Your task to perform on an android device: add a contact Image 0: 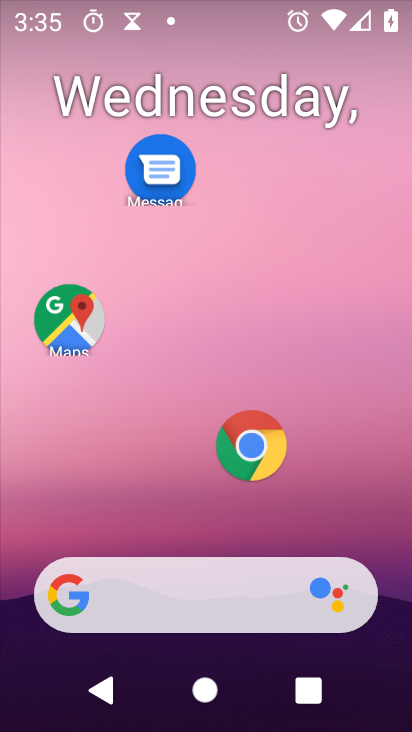
Step 0: press home button
Your task to perform on an android device: add a contact Image 1: 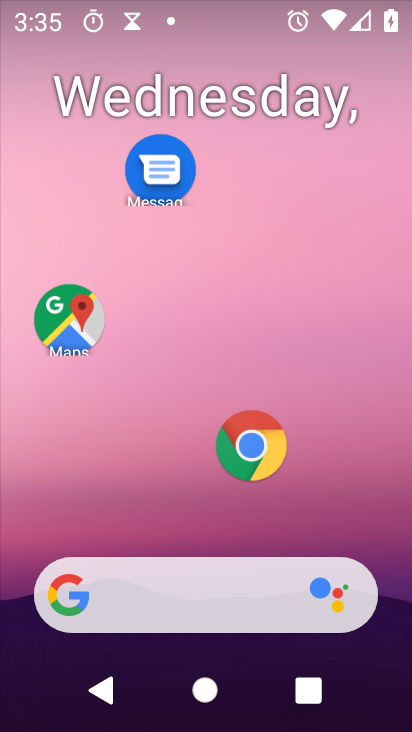
Step 1: drag from (78, 500) to (292, 117)
Your task to perform on an android device: add a contact Image 2: 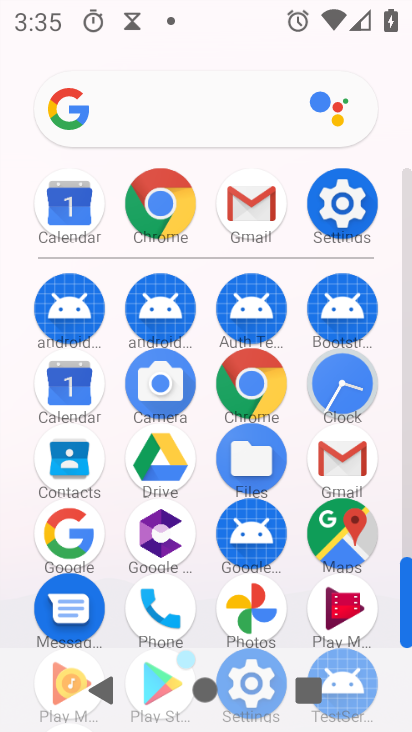
Step 2: click (144, 598)
Your task to perform on an android device: add a contact Image 3: 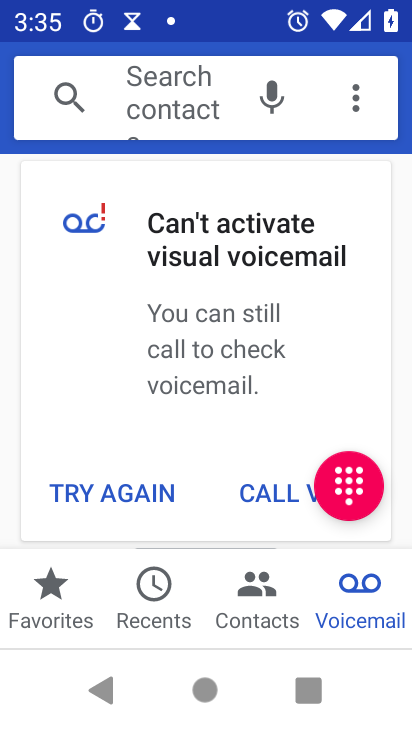
Step 3: click (241, 589)
Your task to perform on an android device: add a contact Image 4: 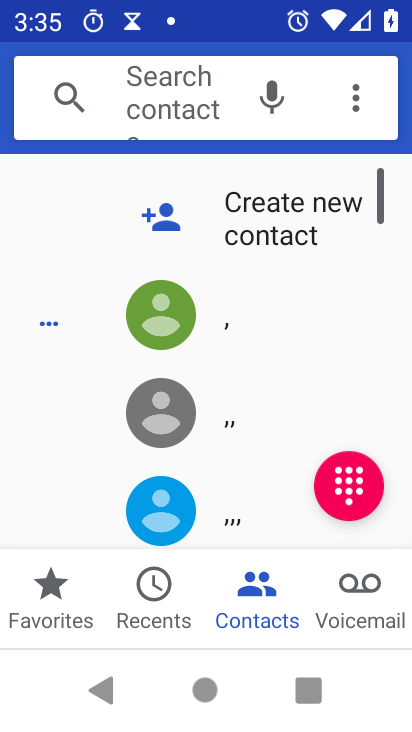
Step 4: click (235, 219)
Your task to perform on an android device: add a contact Image 5: 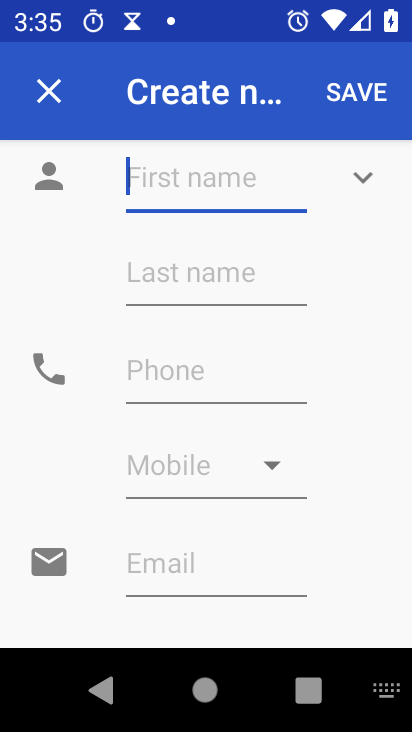
Step 5: click (209, 184)
Your task to perform on an android device: add a contact Image 6: 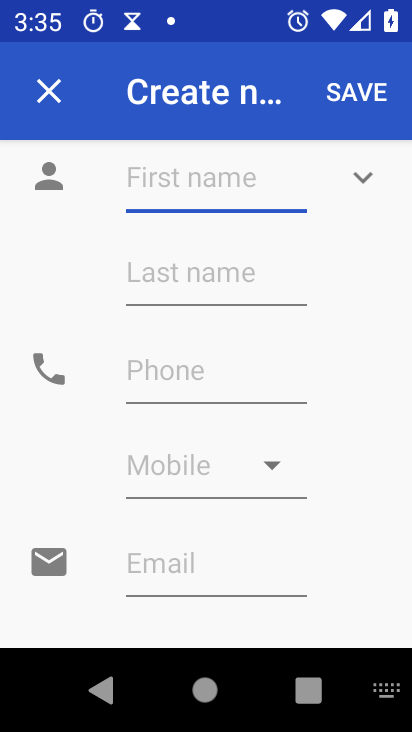
Step 6: type "tfdsrg"
Your task to perform on an android device: add a contact Image 7: 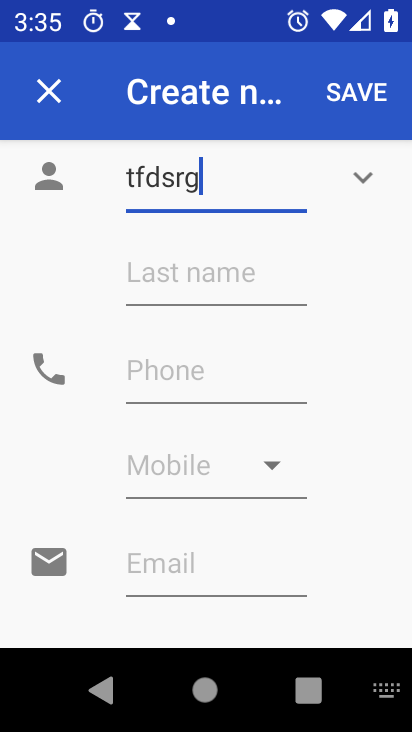
Step 7: type ""
Your task to perform on an android device: add a contact Image 8: 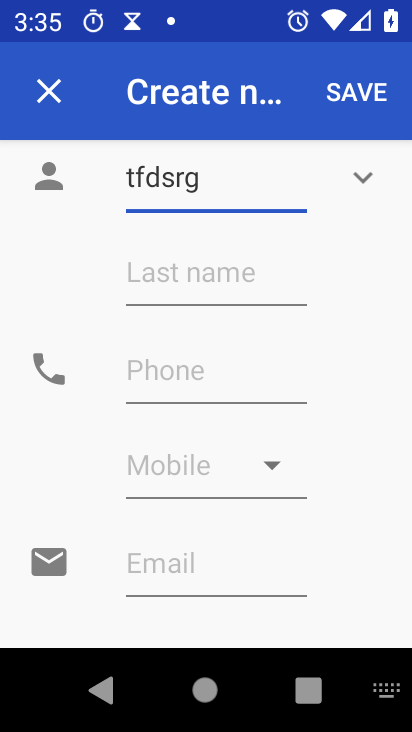
Step 8: click (364, 84)
Your task to perform on an android device: add a contact Image 9: 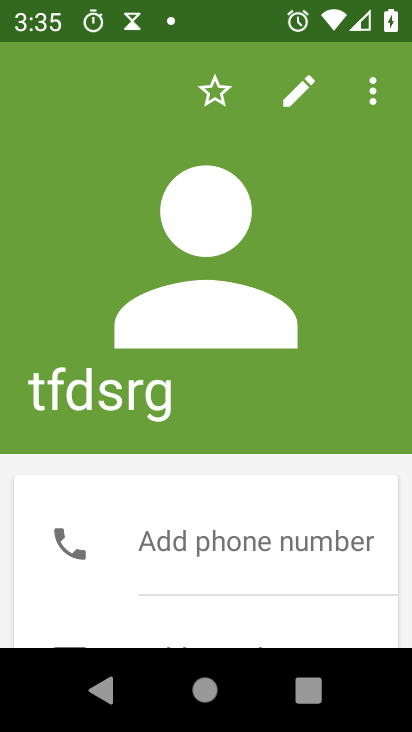
Step 9: task complete